Your task to perform on an android device: Open calendar and show me the second week of next month Image 0: 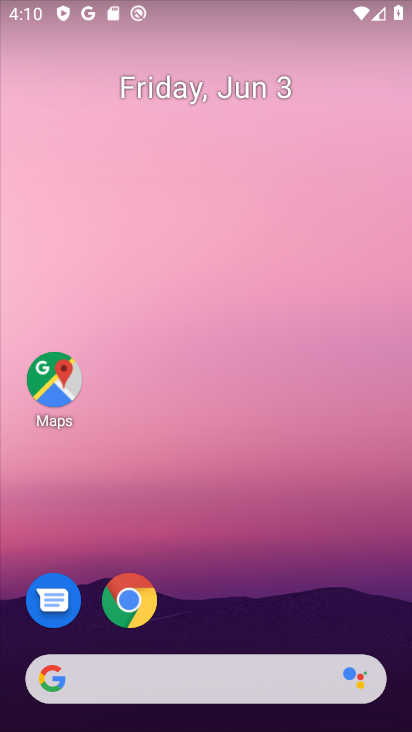
Step 0: click (178, 388)
Your task to perform on an android device: Open calendar and show me the second week of next month Image 1: 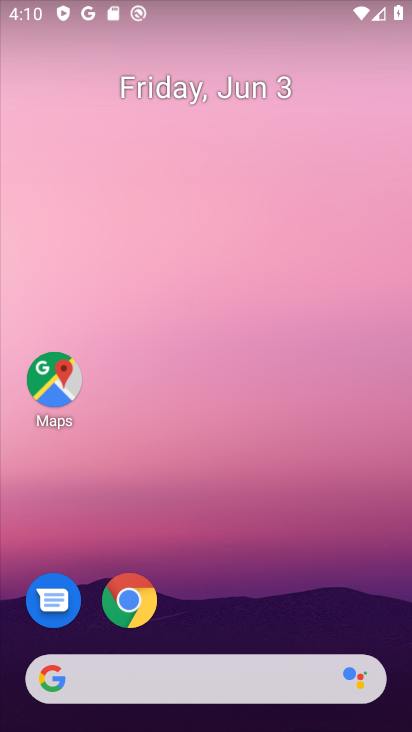
Step 1: drag from (394, 684) to (321, 144)
Your task to perform on an android device: Open calendar and show me the second week of next month Image 2: 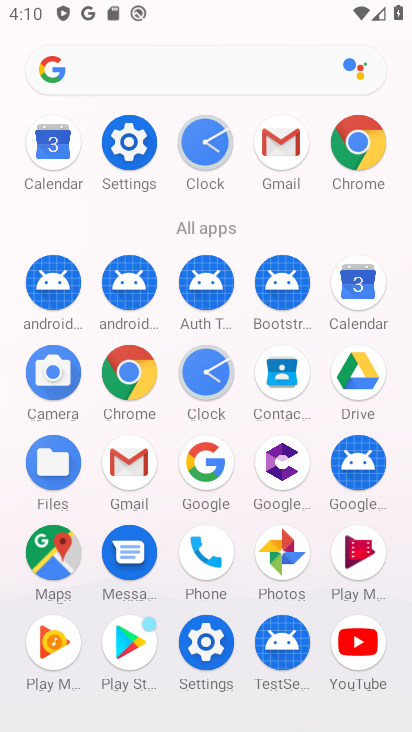
Step 2: click (362, 280)
Your task to perform on an android device: Open calendar and show me the second week of next month Image 3: 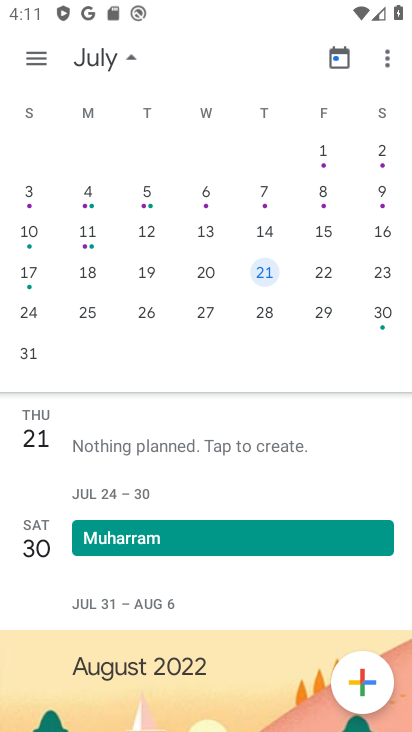
Step 3: click (197, 192)
Your task to perform on an android device: Open calendar and show me the second week of next month Image 4: 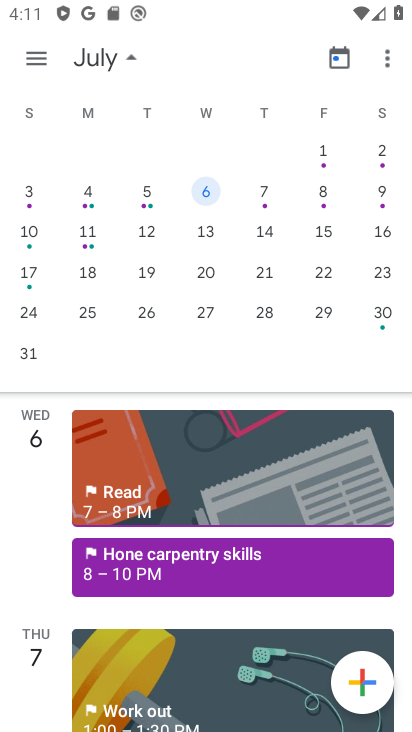
Step 4: click (18, 50)
Your task to perform on an android device: Open calendar and show me the second week of next month Image 5: 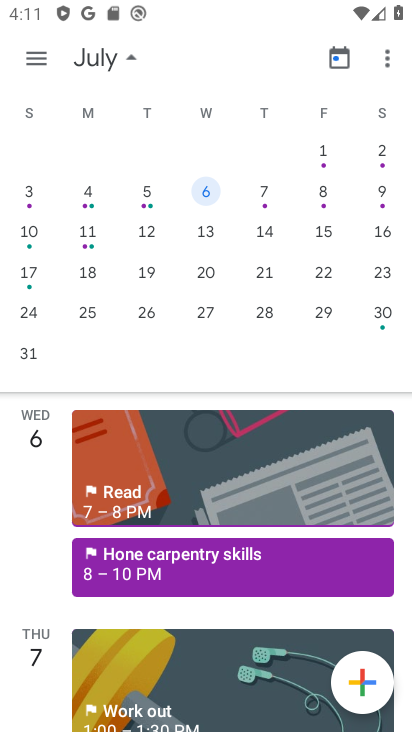
Step 5: click (28, 52)
Your task to perform on an android device: Open calendar and show me the second week of next month Image 6: 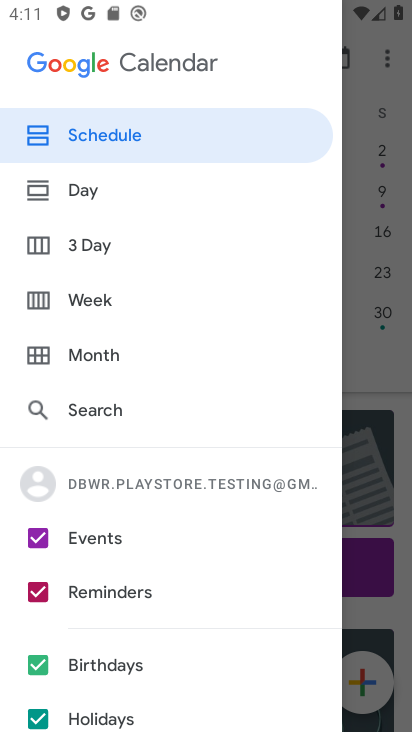
Step 6: click (73, 302)
Your task to perform on an android device: Open calendar and show me the second week of next month Image 7: 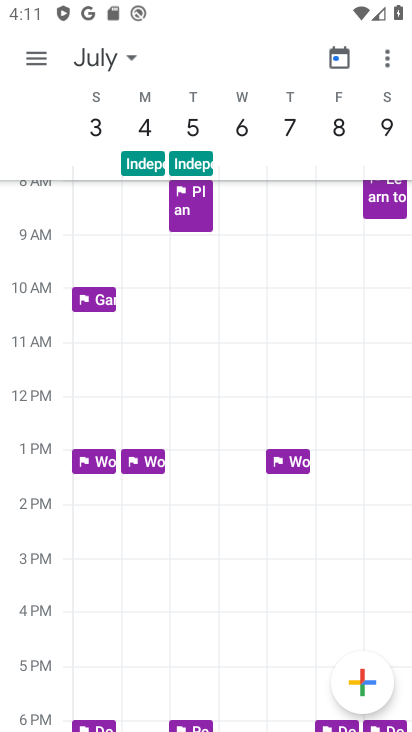
Step 7: task complete